Your task to perform on an android device: turn pop-ups on in chrome Image 0: 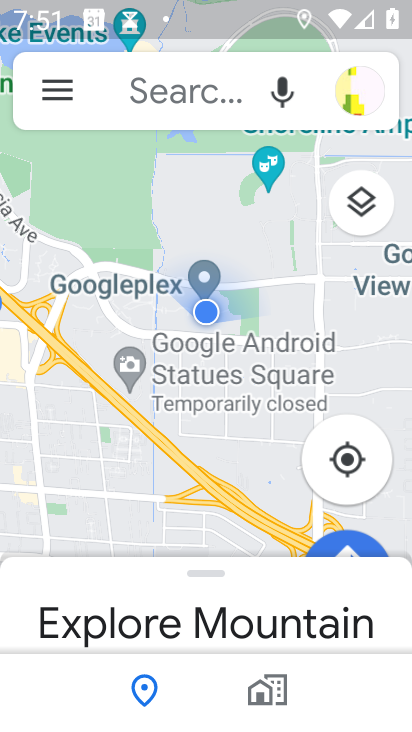
Step 0: press home button
Your task to perform on an android device: turn pop-ups on in chrome Image 1: 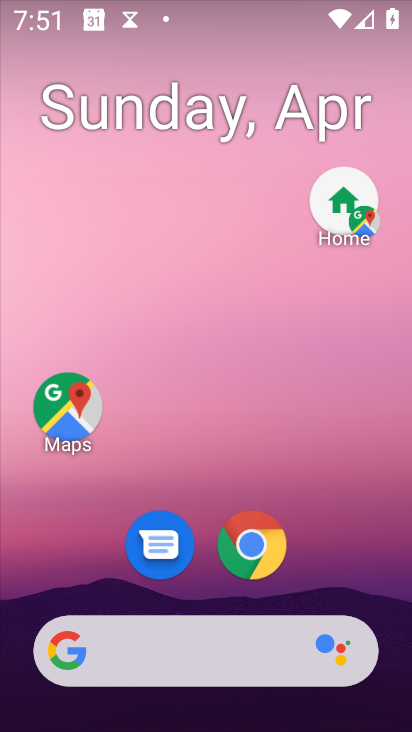
Step 1: drag from (324, 545) to (240, 192)
Your task to perform on an android device: turn pop-ups on in chrome Image 2: 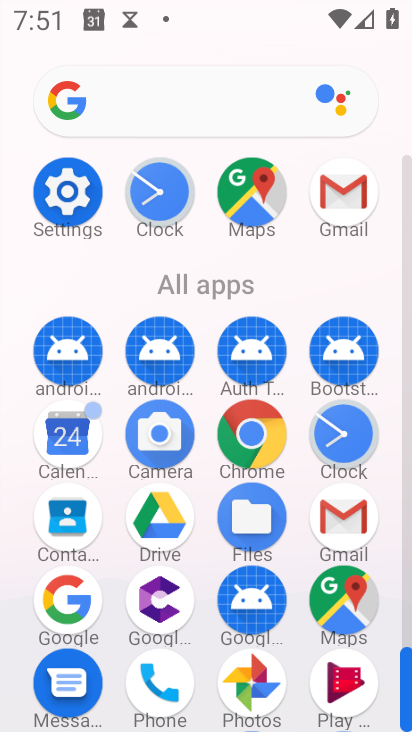
Step 2: click (246, 429)
Your task to perform on an android device: turn pop-ups on in chrome Image 3: 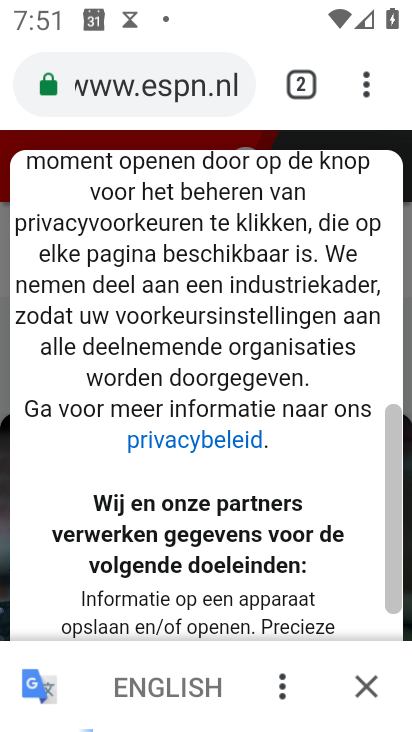
Step 3: click (362, 696)
Your task to perform on an android device: turn pop-ups on in chrome Image 4: 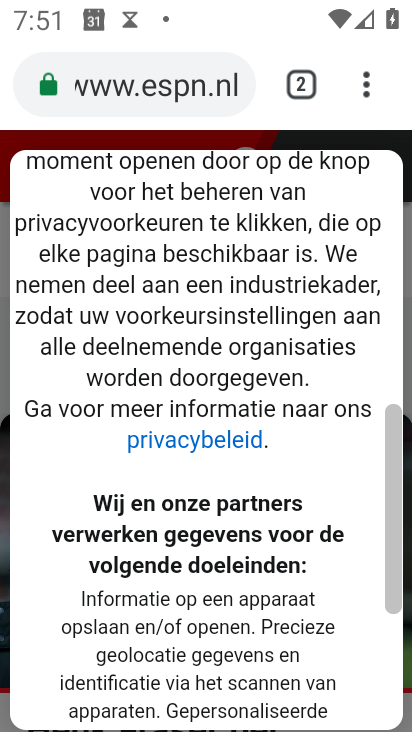
Step 4: click (355, 84)
Your task to perform on an android device: turn pop-ups on in chrome Image 5: 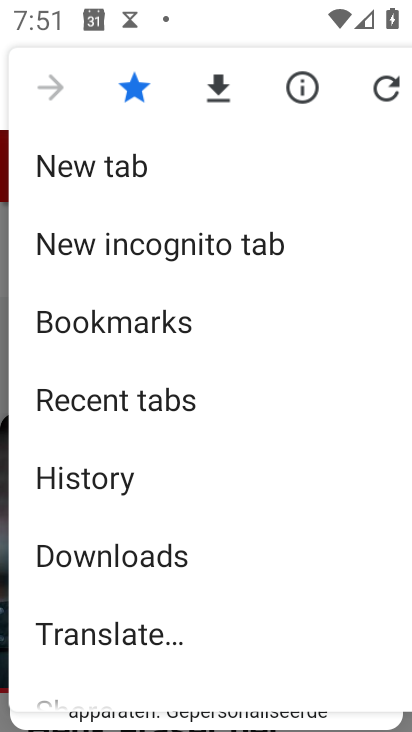
Step 5: drag from (201, 636) to (221, 214)
Your task to perform on an android device: turn pop-ups on in chrome Image 6: 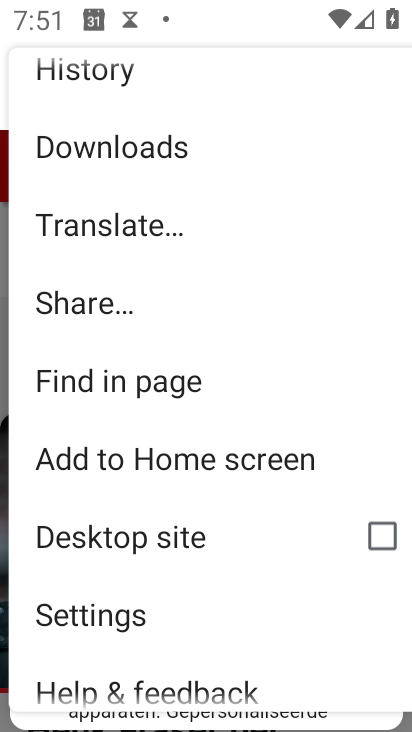
Step 6: click (143, 606)
Your task to perform on an android device: turn pop-ups on in chrome Image 7: 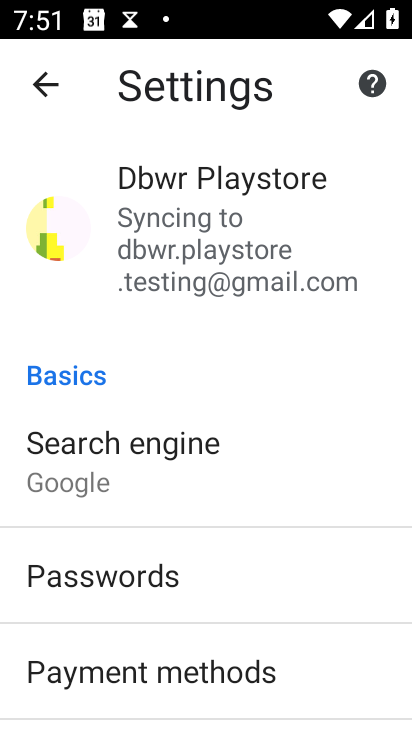
Step 7: drag from (165, 581) to (198, 122)
Your task to perform on an android device: turn pop-ups on in chrome Image 8: 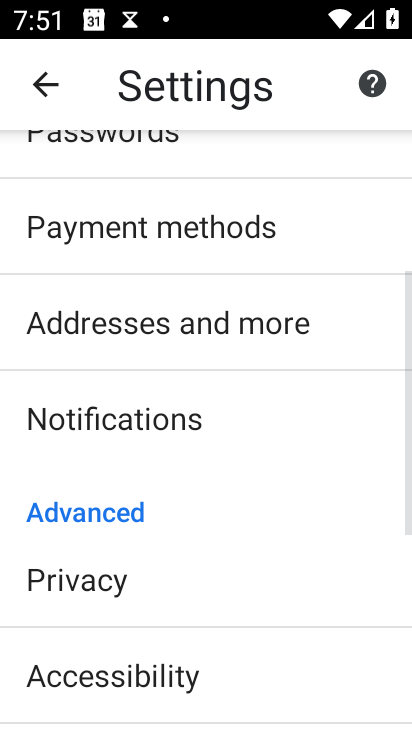
Step 8: drag from (189, 644) to (237, 157)
Your task to perform on an android device: turn pop-ups on in chrome Image 9: 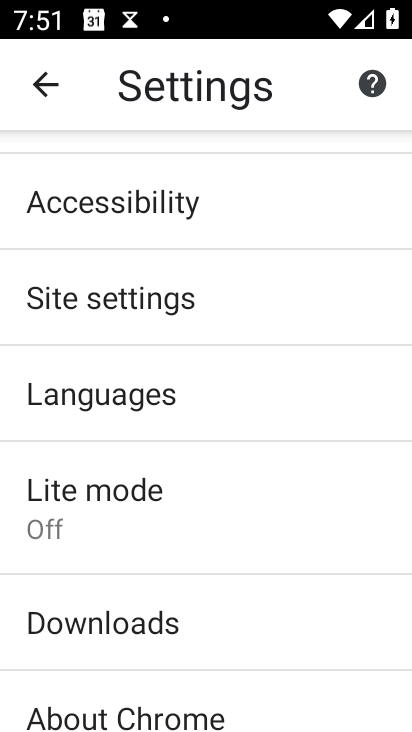
Step 9: click (147, 277)
Your task to perform on an android device: turn pop-ups on in chrome Image 10: 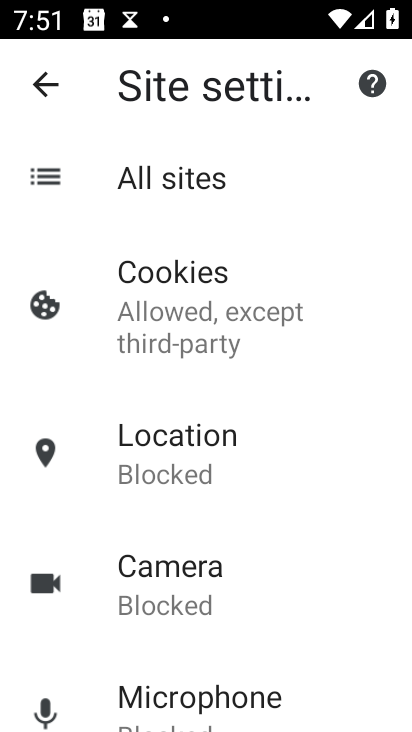
Step 10: drag from (273, 619) to (288, 98)
Your task to perform on an android device: turn pop-ups on in chrome Image 11: 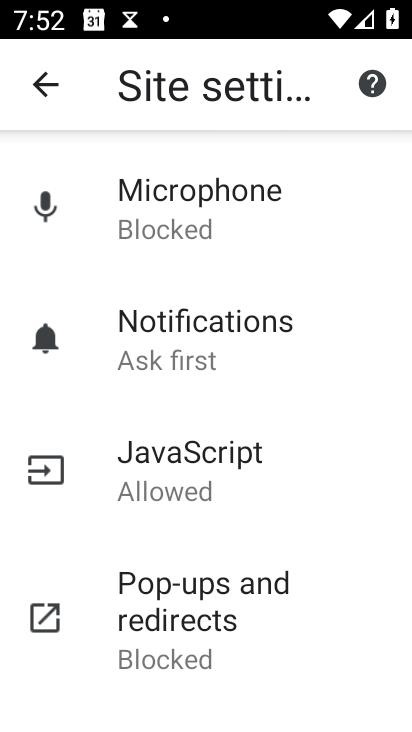
Step 11: click (174, 619)
Your task to perform on an android device: turn pop-ups on in chrome Image 12: 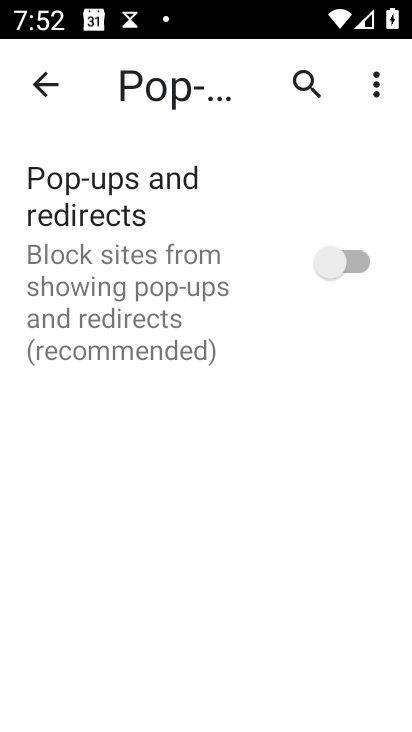
Step 12: click (331, 266)
Your task to perform on an android device: turn pop-ups on in chrome Image 13: 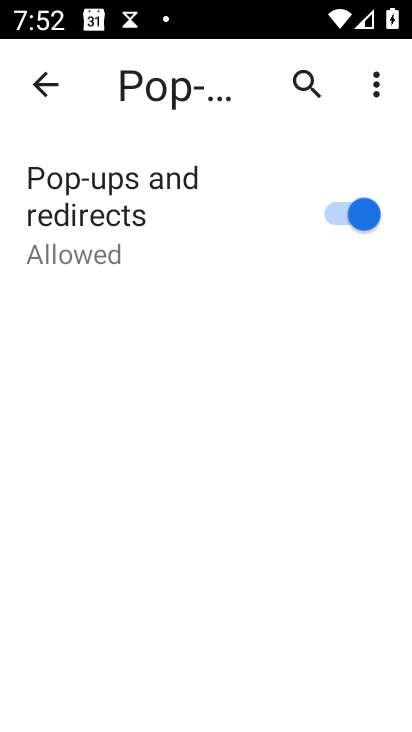
Step 13: task complete